Your task to perform on an android device: toggle notifications settings in the gmail app Image 0: 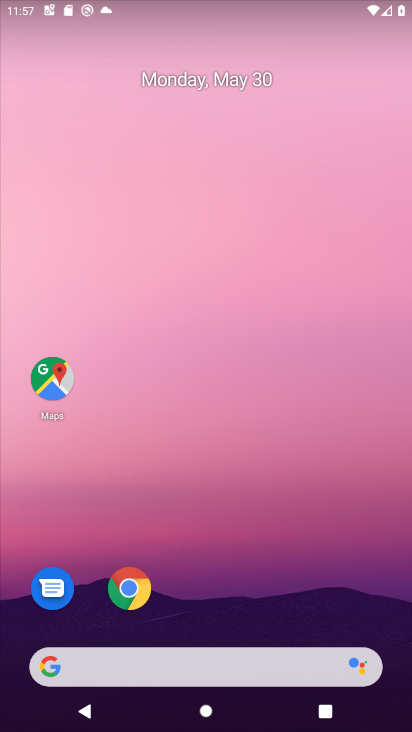
Step 0: click (248, 627)
Your task to perform on an android device: toggle notifications settings in the gmail app Image 1: 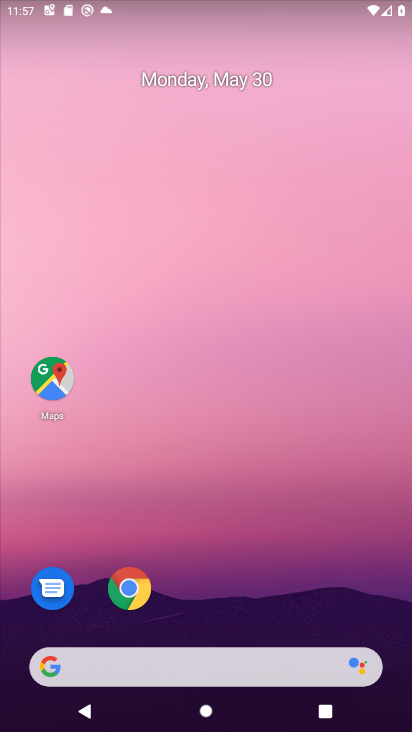
Step 1: drag from (261, 559) to (235, 9)
Your task to perform on an android device: toggle notifications settings in the gmail app Image 2: 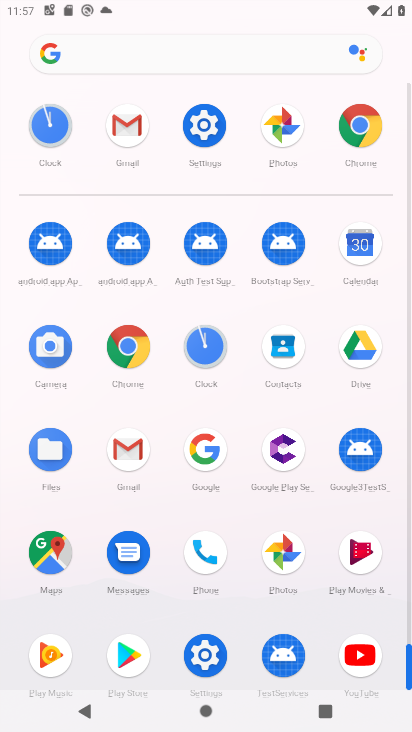
Step 2: click (148, 440)
Your task to perform on an android device: toggle notifications settings in the gmail app Image 3: 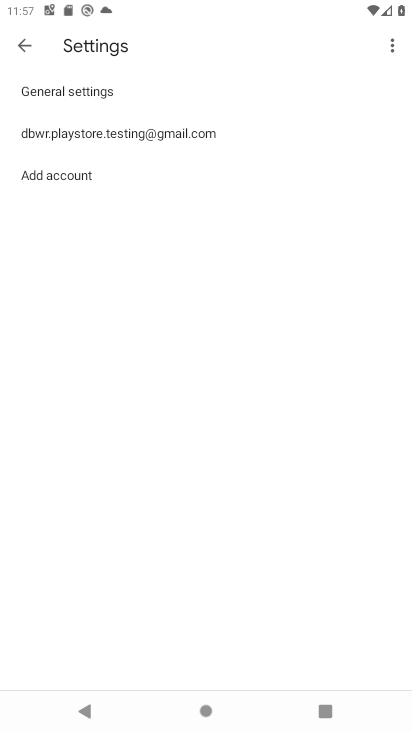
Step 3: task complete